Your task to perform on an android device: Open the phone app and click the voicemail tab. Image 0: 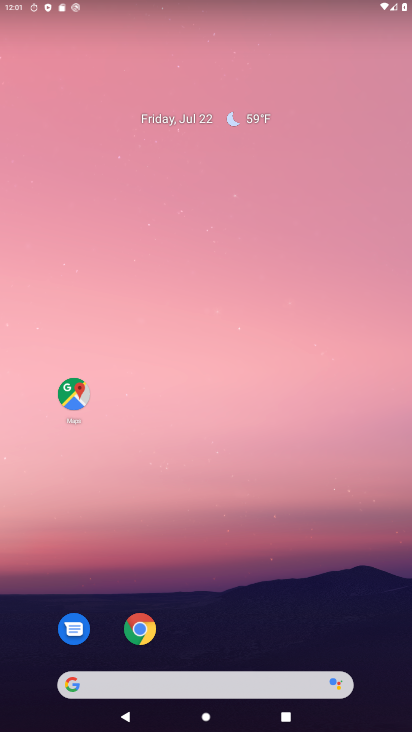
Step 0: drag from (278, 670) to (290, 58)
Your task to perform on an android device: Open the phone app and click the voicemail tab. Image 1: 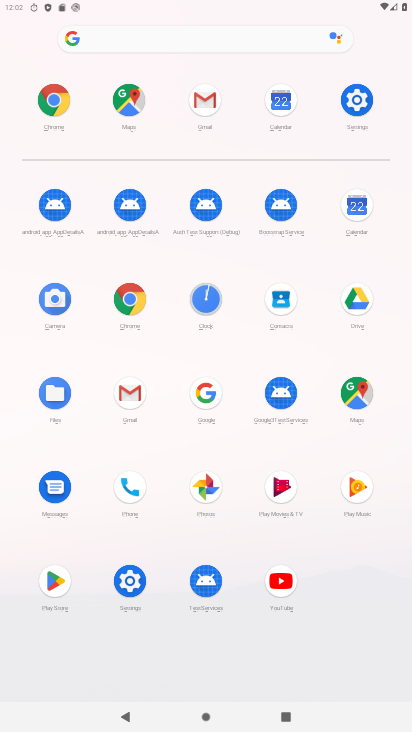
Step 1: click (119, 480)
Your task to perform on an android device: Open the phone app and click the voicemail tab. Image 2: 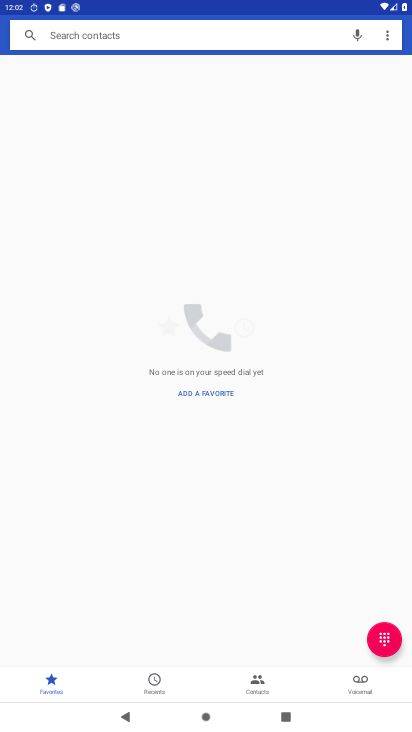
Step 2: click (369, 683)
Your task to perform on an android device: Open the phone app and click the voicemail tab. Image 3: 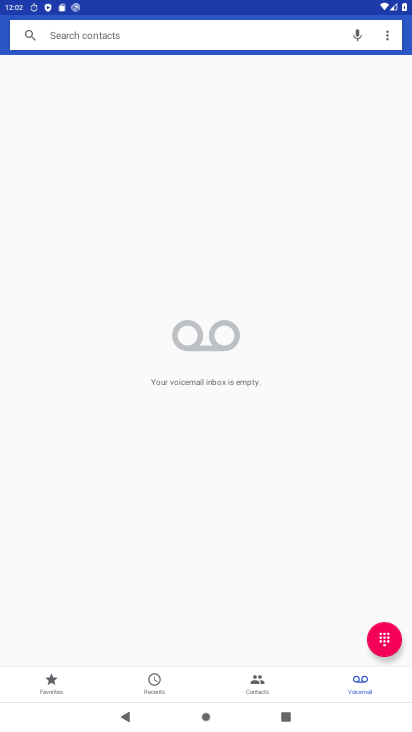
Step 3: task complete